Your task to perform on an android device: Open calendar and show me the second week of next month Image 0: 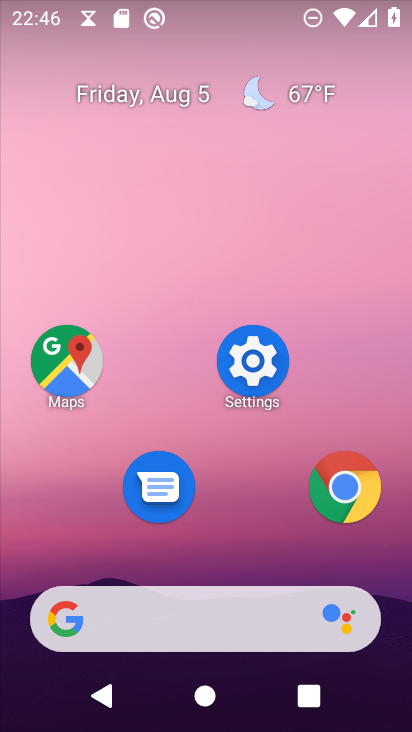
Step 0: press home button
Your task to perform on an android device: Open calendar and show me the second week of next month Image 1: 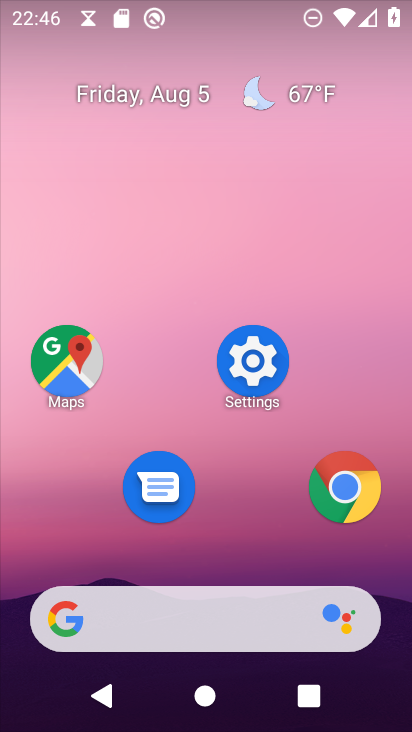
Step 1: drag from (258, 300) to (298, 40)
Your task to perform on an android device: Open calendar and show me the second week of next month Image 2: 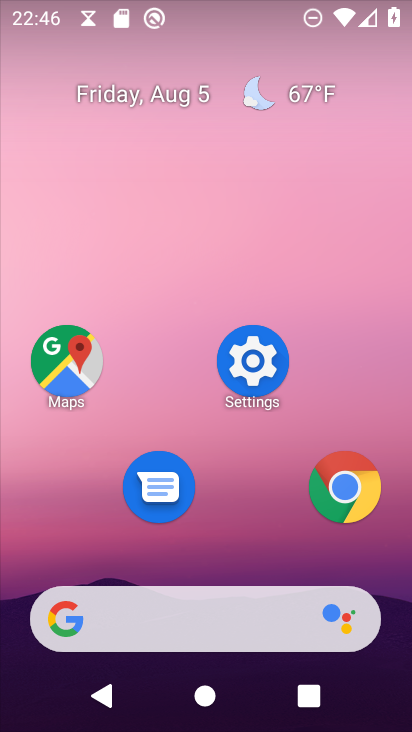
Step 2: drag from (185, 616) to (236, 68)
Your task to perform on an android device: Open calendar and show me the second week of next month Image 3: 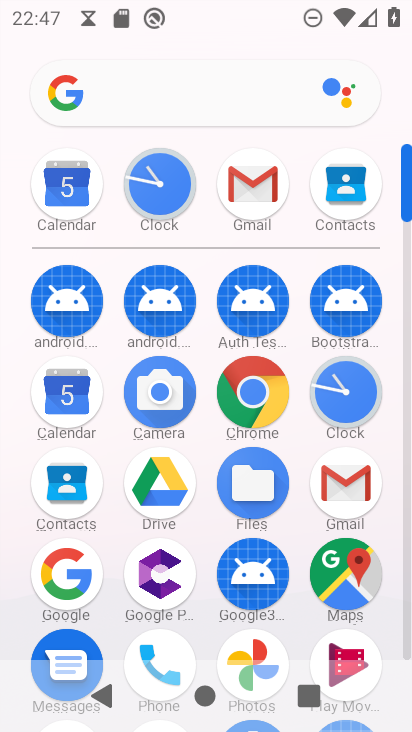
Step 3: click (72, 399)
Your task to perform on an android device: Open calendar and show me the second week of next month Image 4: 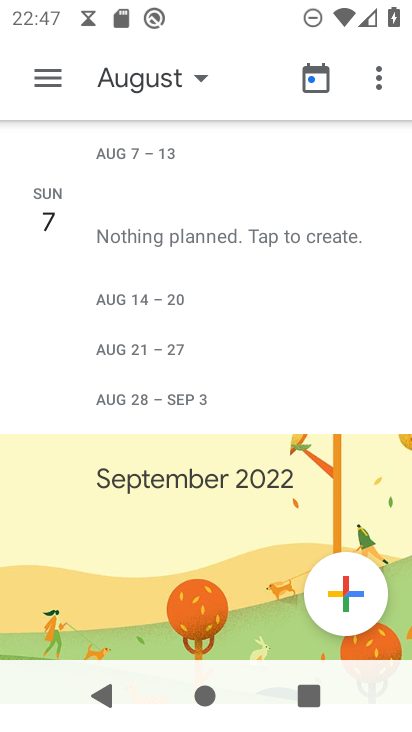
Step 4: click (140, 77)
Your task to perform on an android device: Open calendar and show me the second week of next month Image 5: 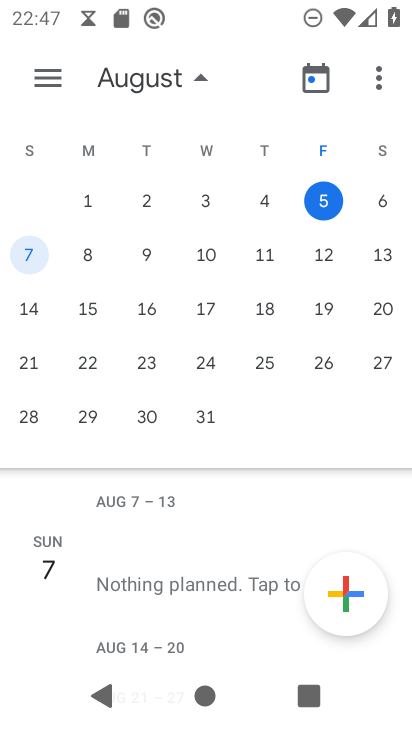
Step 5: drag from (377, 335) to (7, 341)
Your task to perform on an android device: Open calendar and show me the second week of next month Image 6: 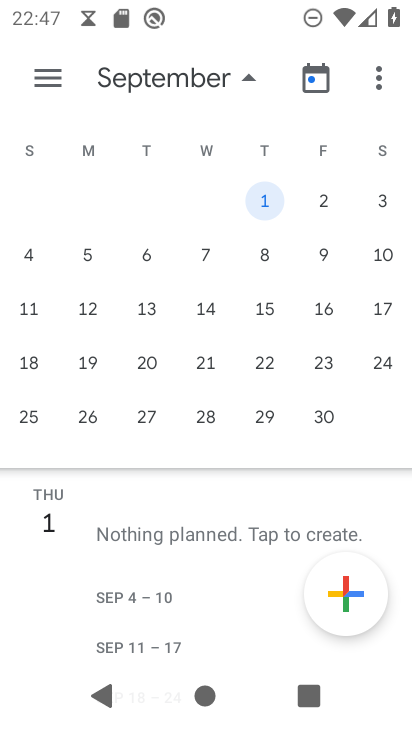
Step 6: click (31, 249)
Your task to perform on an android device: Open calendar and show me the second week of next month Image 7: 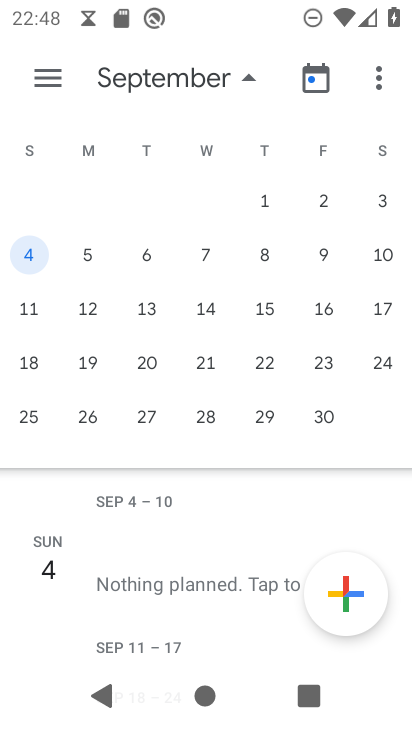
Step 7: click (40, 74)
Your task to perform on an android device: Open calendar and show me the second week of next month Image 8: 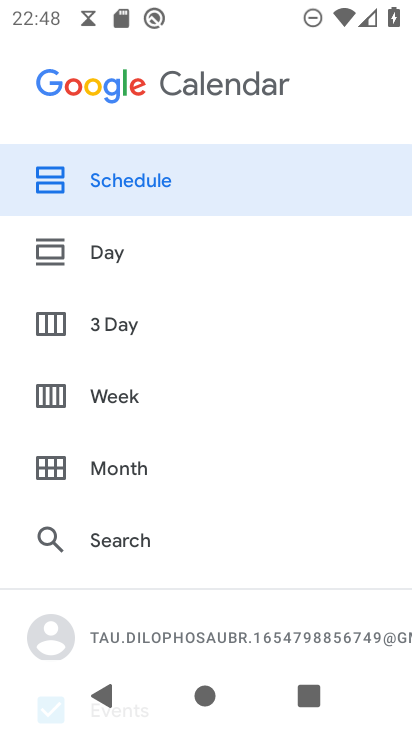
Step 8: click (110, 392)
Your task to perform on an android device: Open calendar and show me the second week of next month Image 9: 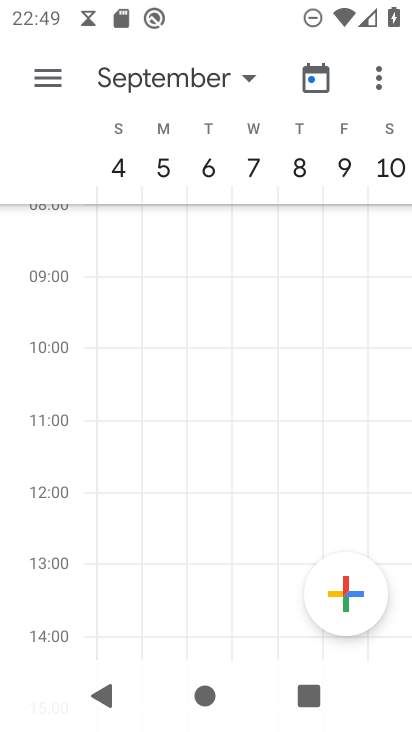
Step 9: task complete